Your task to perform on an android device: Empty the shopping cart on target. Add "usb-c" to the cart on target, then select checkout. Image 0: 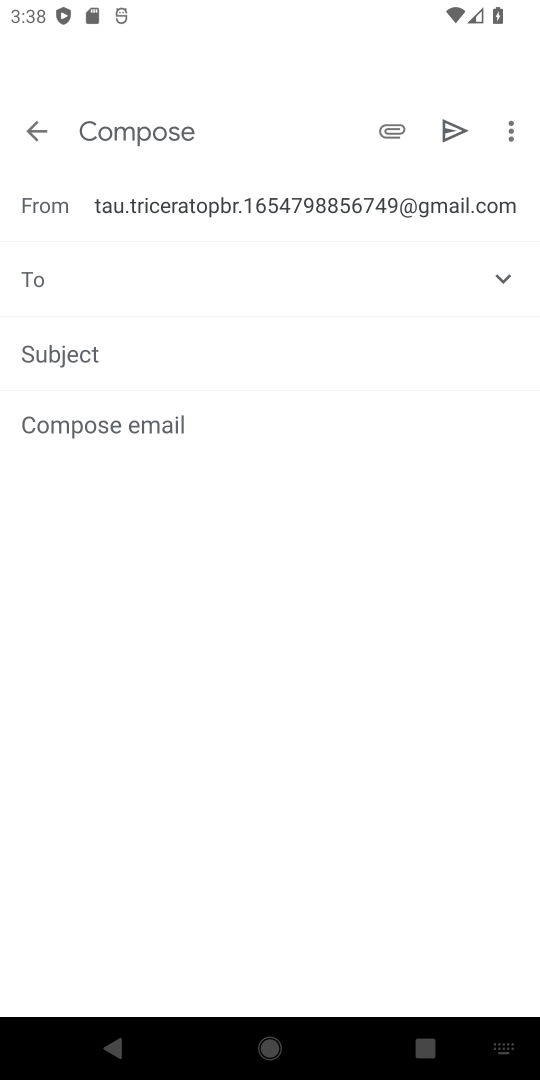
Step 0: press home button
Your task to perform on an android device: Empty the shopping cart on target. Add "usb-c" to the cart on target, then select checkout. Image 1: 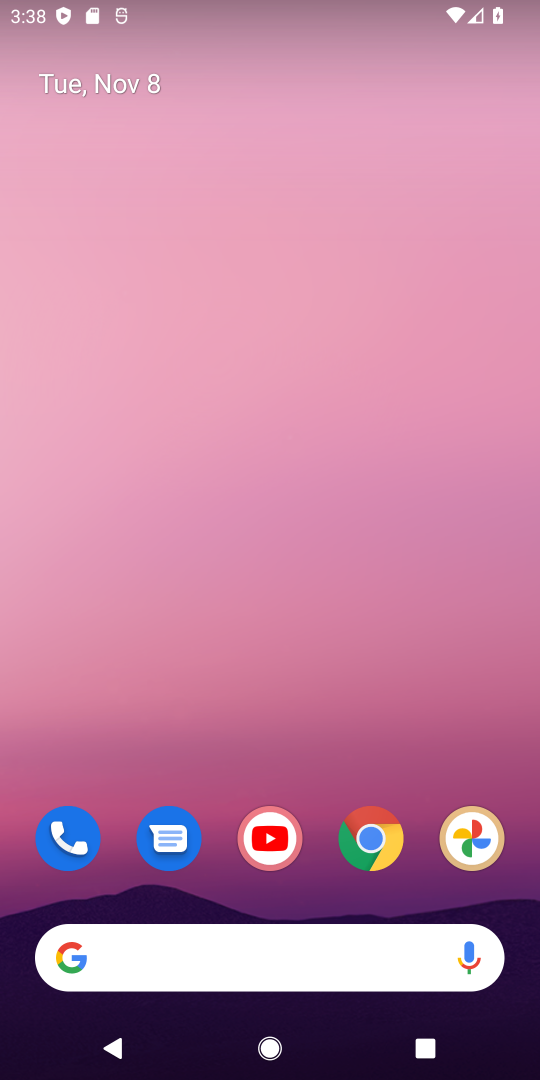
Step 1: drag from (336, 1019) to (374, 195)
Your task to perform on an android device: Empty the shopping cart on target. Add "usb-c" to the cart on target, then select checkout. Image 2: 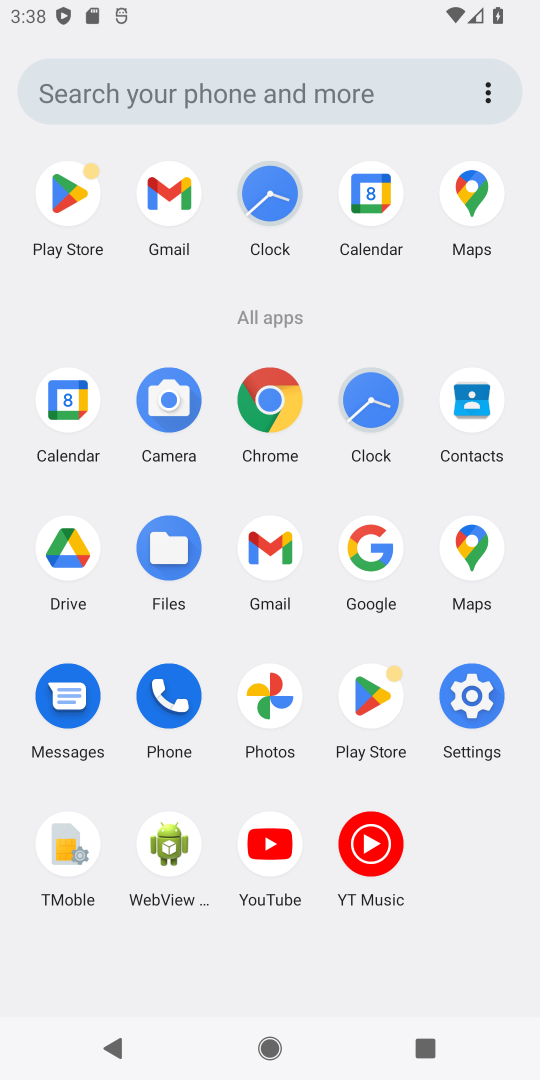
Step 2: click (277, 410)
Your task to perform on an android device: Empty the shopping cart on target. Add "usb-c" to the cart on target, then select checkout. Image 3: 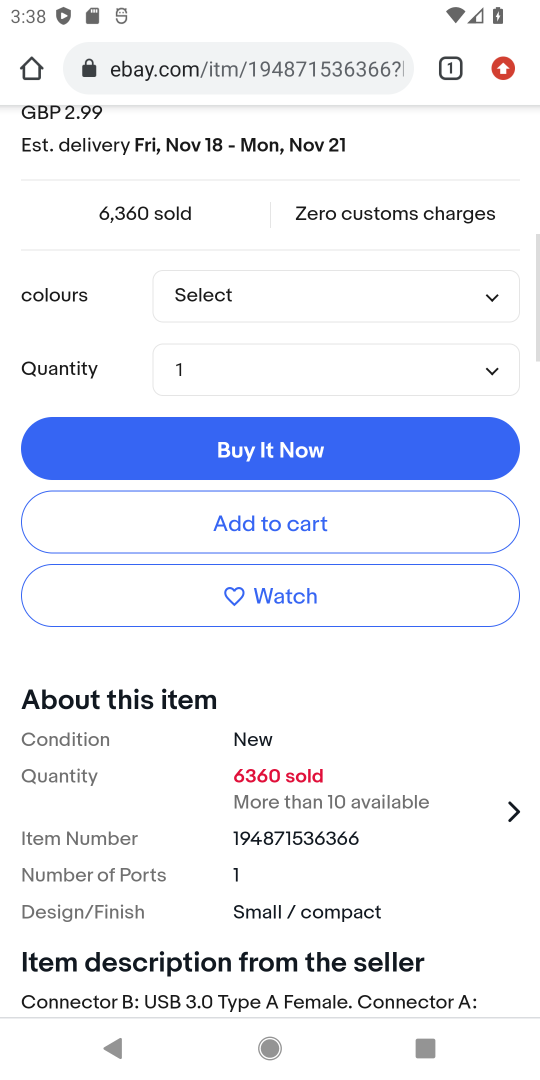
Step 3: click (244, 69)
Your task to perform on an android device: Empty the shopping cart on target. Add "usb-c" to the cart on target, then select checkout. Image 4: 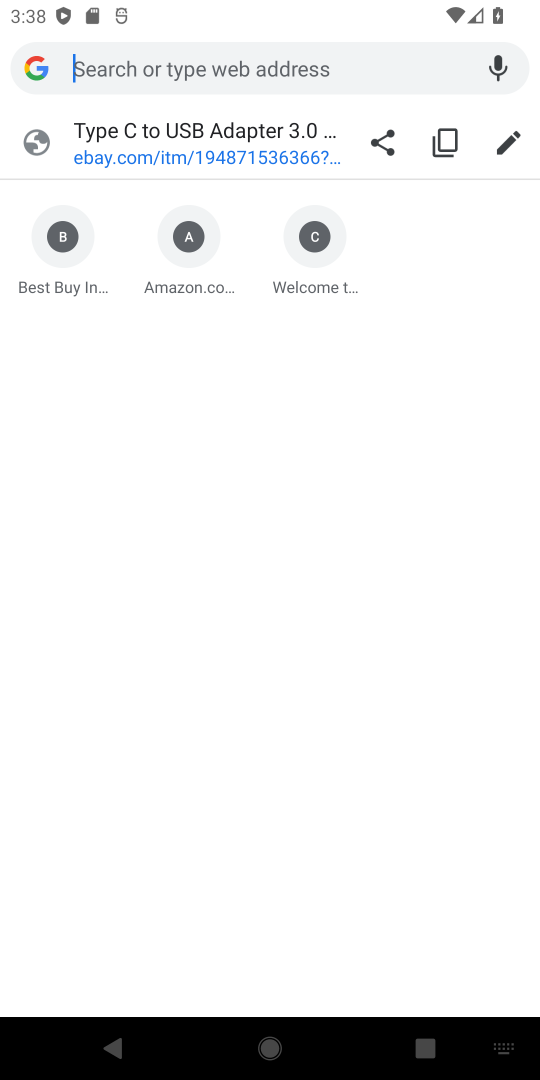
Step 4: type " target"
Your task to perform on an android device: Empty the shopping cart on target. Add "usb-c" to the cart on target, then select checkout. Image 5: 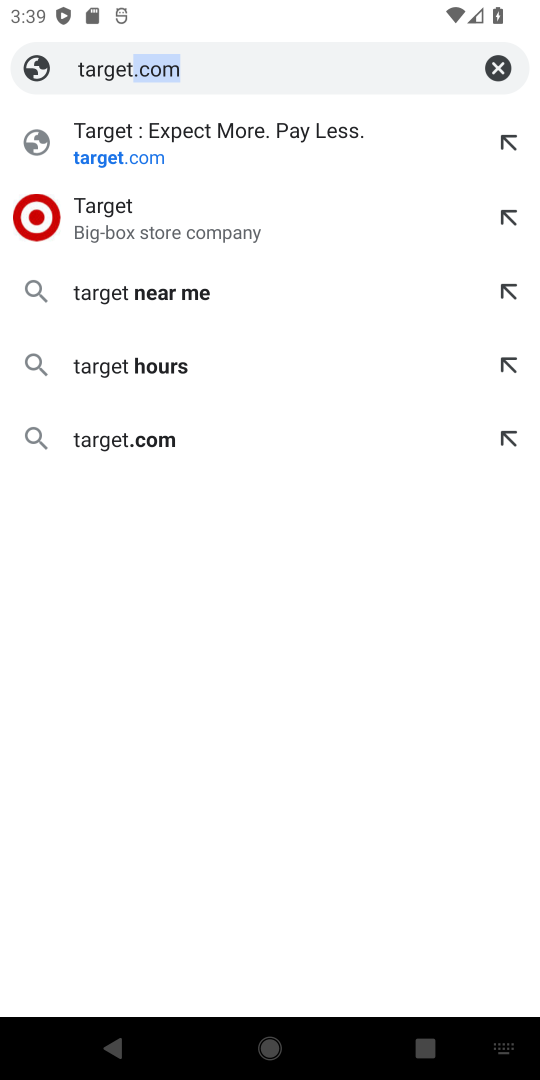
Step 5: click (153, 154)
Your task to perform on an android device: Empty the shopping cart on target. Add "usb-c" to the cart on target, then select checkout. Image 6: 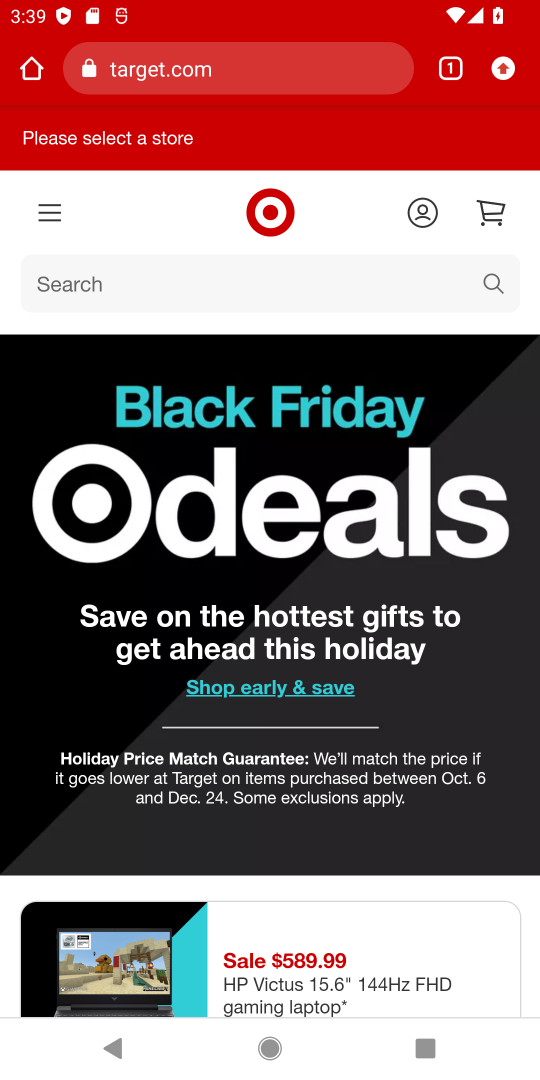
Step 6: click (264, 284)
Your task to perform on an android device: Empty the shopping cart on target. Add "usb-c" to the cart on target, then select checkout. Image 7: 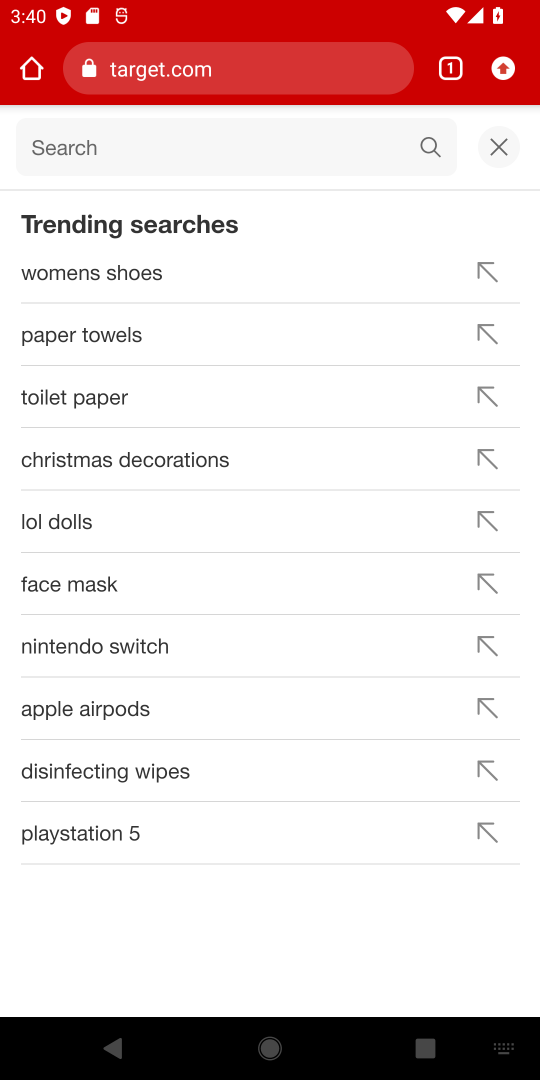
Step 7: type "usb-c"
Your task to perform on an android device: Empty the shopping cart on target. Add "usb-c" to the cart on target, then select checkout. Image 8: 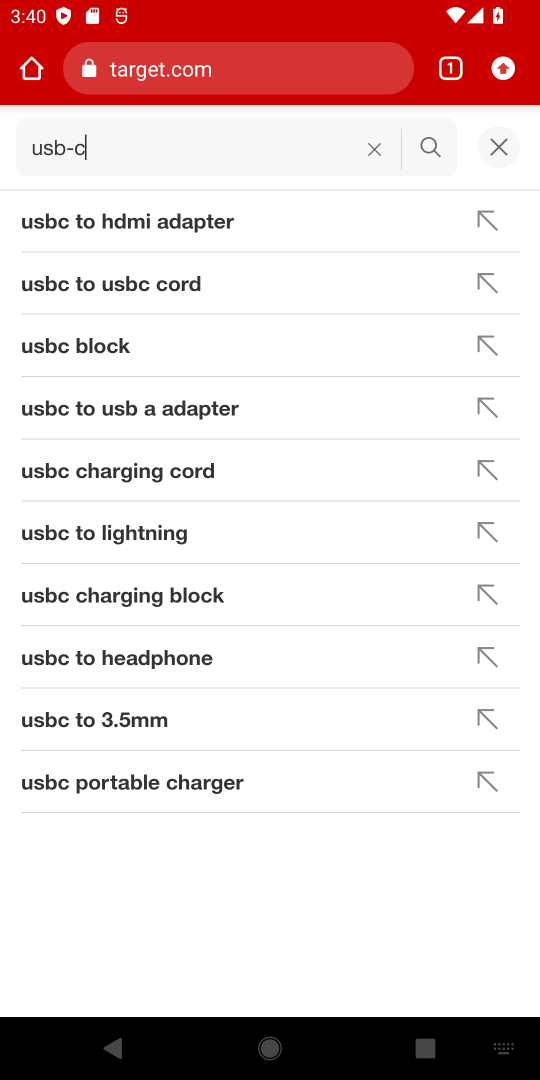
Step 8: click (430, 141)
Your task to perform on an android device: Empty the shopping cart on target. Add "usb-c" to the cart on target, then select checkout. Image 9: 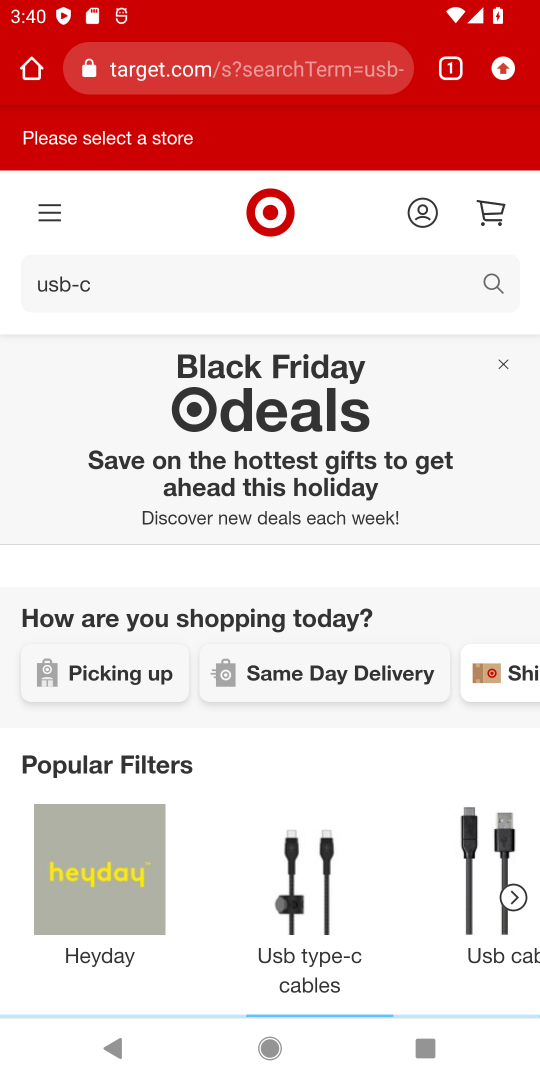
Step 9: drag from (328, 832) to (369, 344)
Your task to perform on an android device: Empty the shopping cart on target. Add "usb-c" to the cart on target, then select checkout. Image 10: 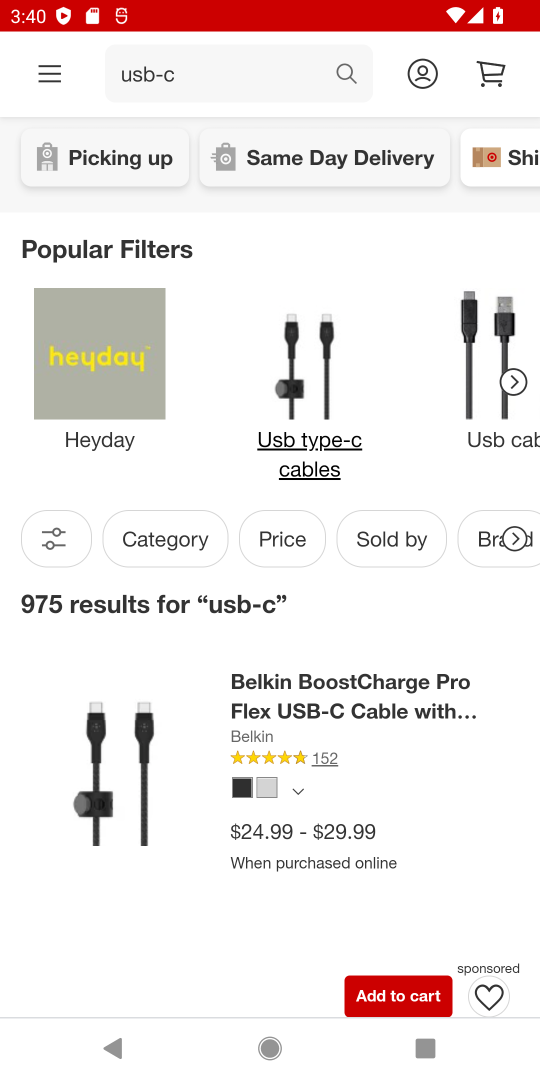
Step 10: click (192, 744)
Your task to perform on an android device: Empty the shopping cart on target. Add "usb-c" to the cart on target, then select checkout. Image 11: 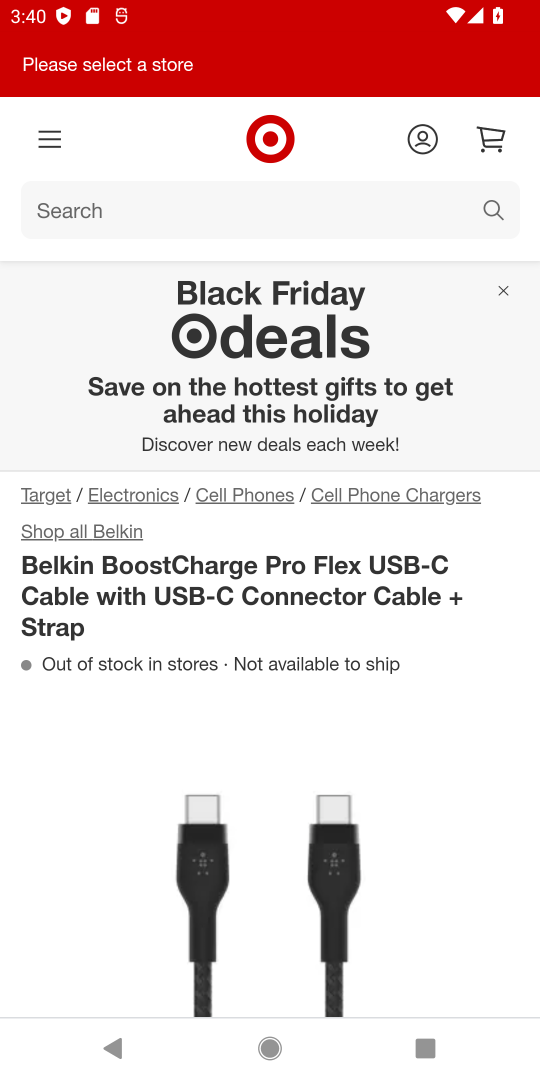
Step 11: drag from (413, 794) to (343, 6)
Your task to perform on an android device: Empty the shopping cart on target. Add "usb-c" to the cart on target, then select checkout. Image 12: 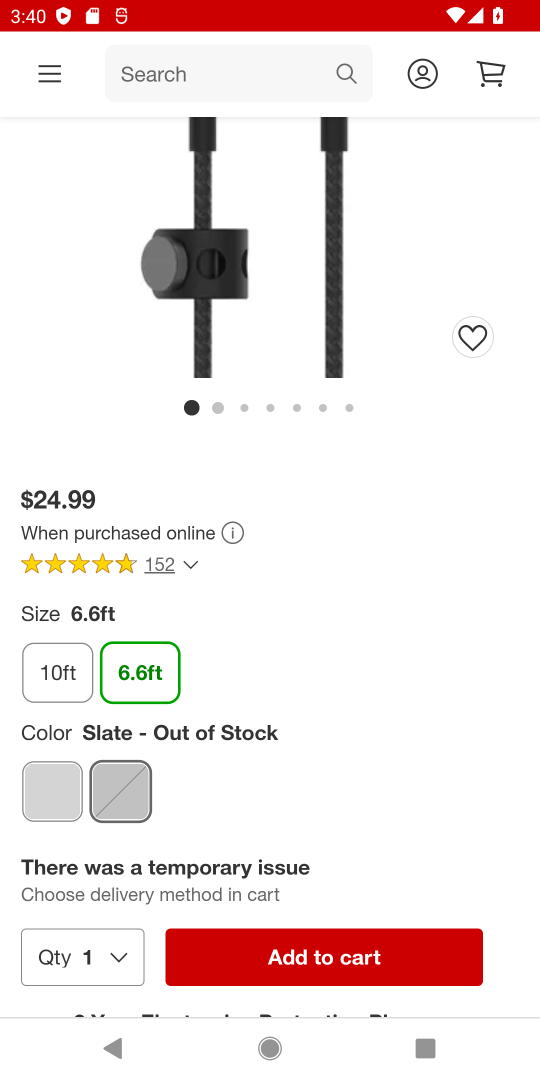
Step 12: click (308, 957)
Your task to perform on an android device: Empty the shopping cart on target. Add "usb-c" to the cart on target, then select checkout. Image 13: 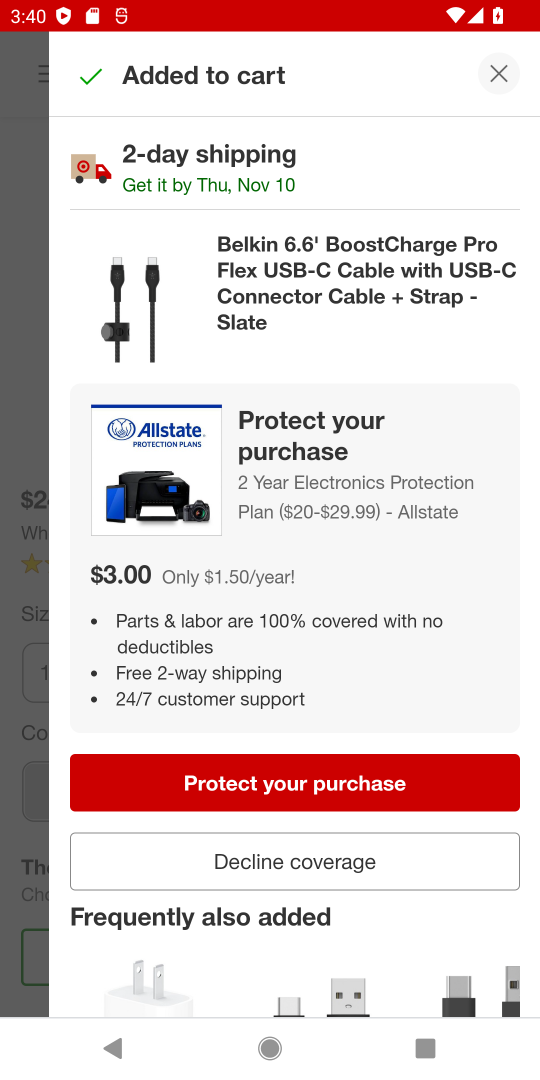
Step 13: task complete